Your task to perform on an android device: open a new tab in the chrome app Image 0: 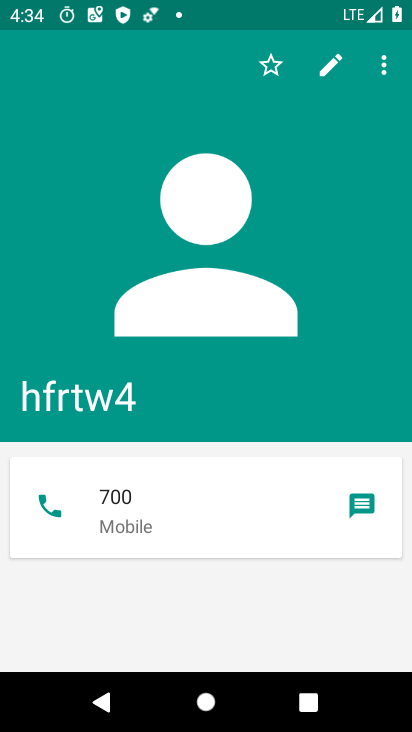
Step 0: press home button
Your task to perform on an android device: open a new tab in the chrome app Image 1: 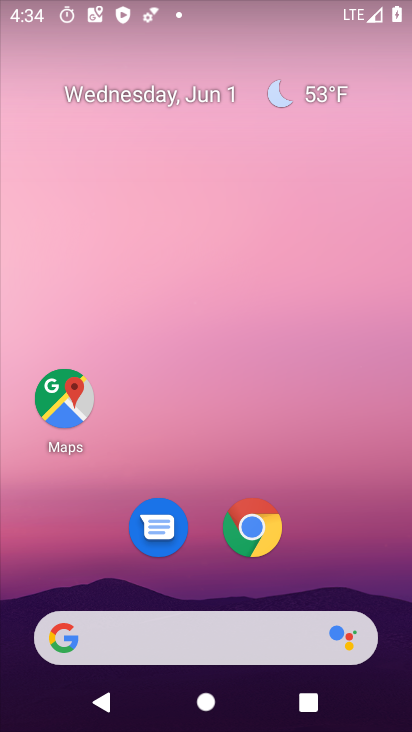
Step 1: click (255, 520)
Your task to perform on an android device: open a new tab in the chrome app Image 2: 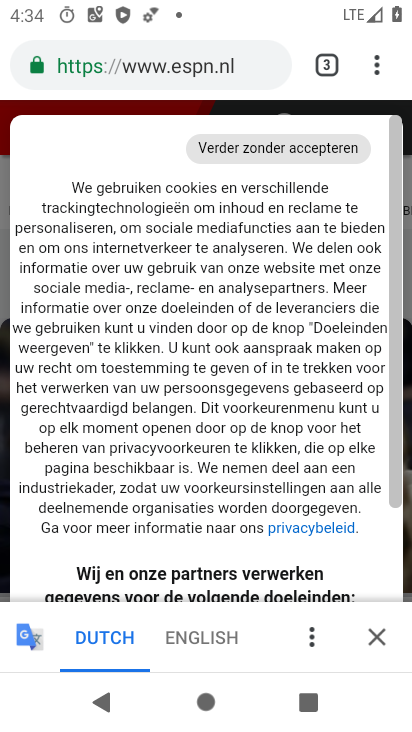
Step 2: task complete